Your task to perform on an android device: toggle location history Image 0: 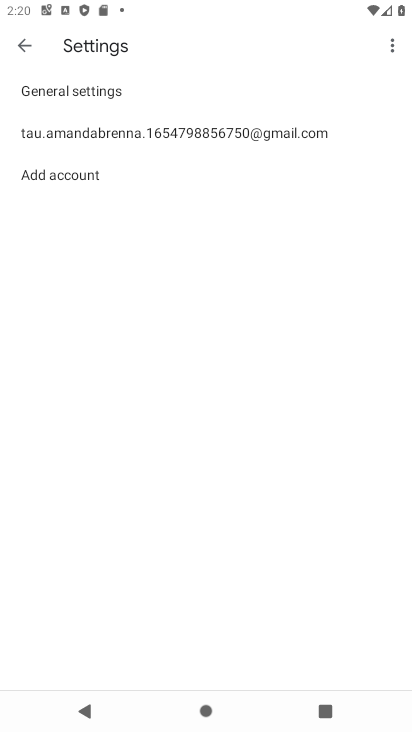
Step 0: press home button
Your task to perform on an android device: toggle location history Image 1: 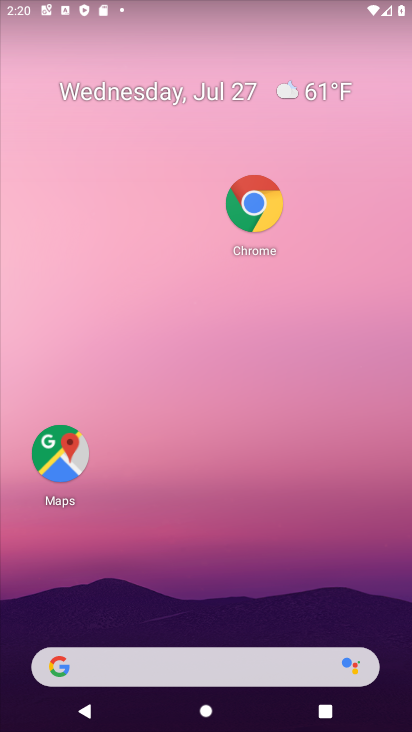
Step 1: drag from (218, 531) to (219, 216)
Your task to perform on an android device: toggle location history Image 2: 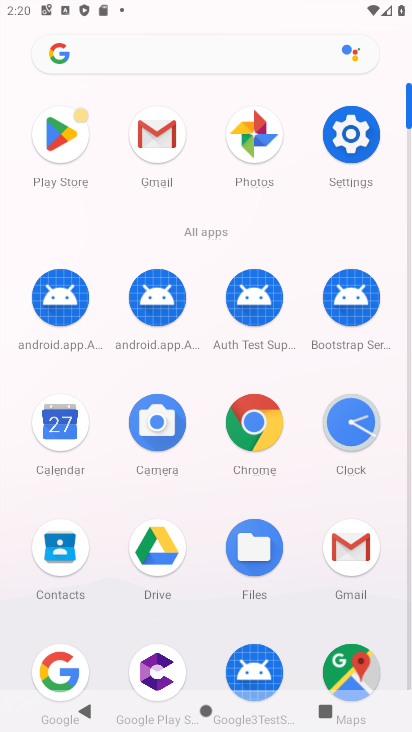
Step 2: click (332, 146)
Your task to perform on an android device: toggle location history Image 3: 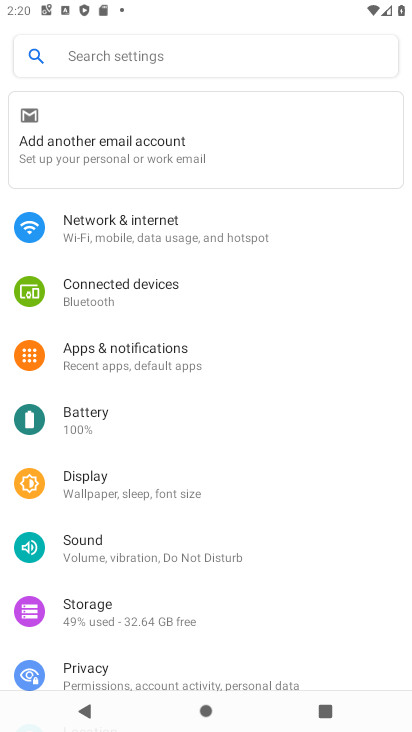
Step 3: drag from (120, 626) to (134, 318)
Your task to perform on an android device: toggle location history Image 4: 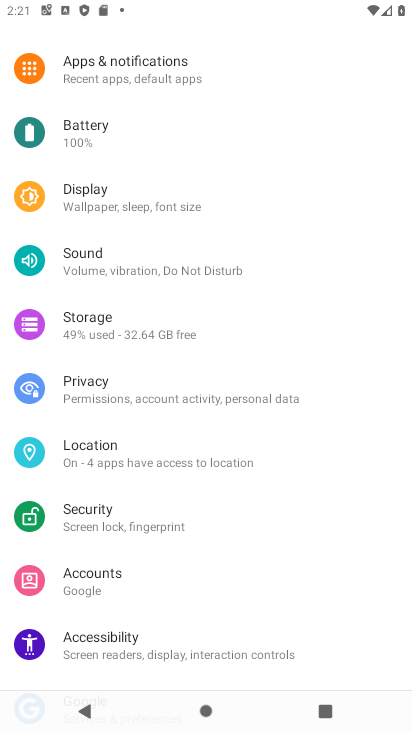
Step 4: click (111, 455)
Your task to perform on an android device: toggle location history Image 5: 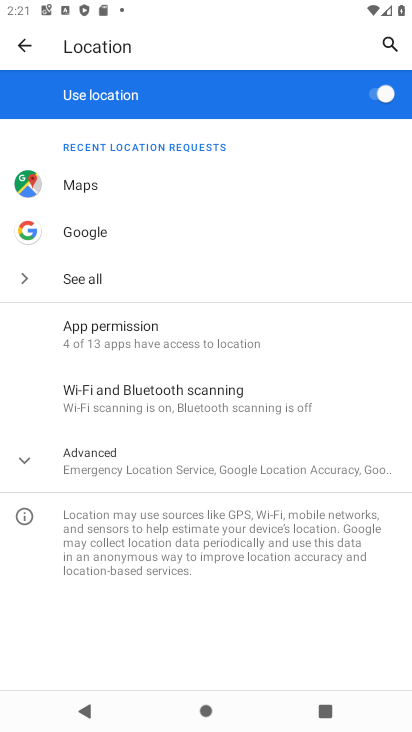
Step 5: click (193, 453)
Your task to perform on an android device: toggle location history Image 6: 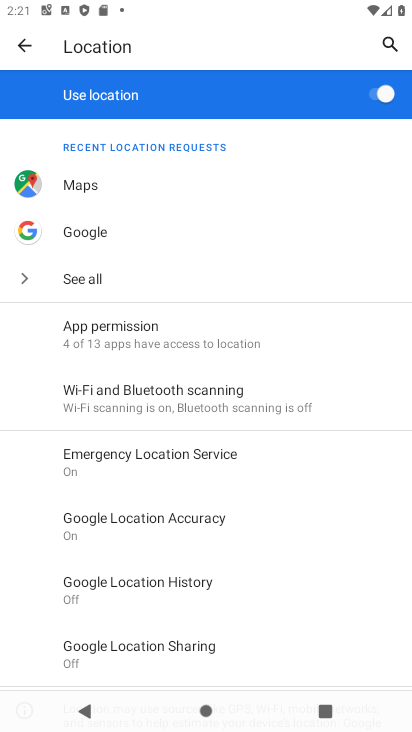
Step 6: click (211, 566)
Your task to perform on an android device: toggle location history Image 7: 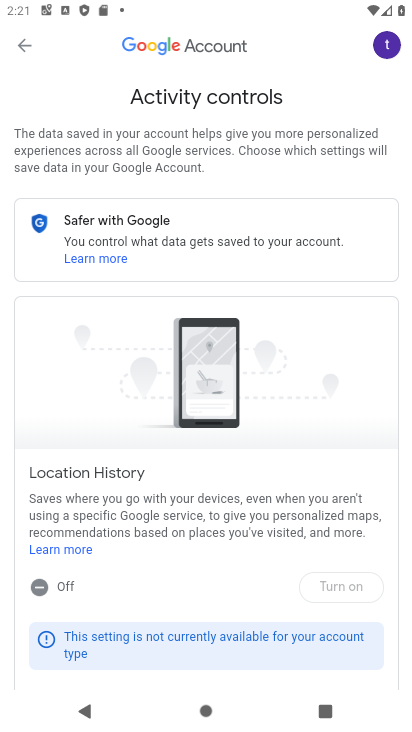
Step 7: drag from (259, 565) to (259, 287)
Your task to perform on an android device: toggle location history Image 8: 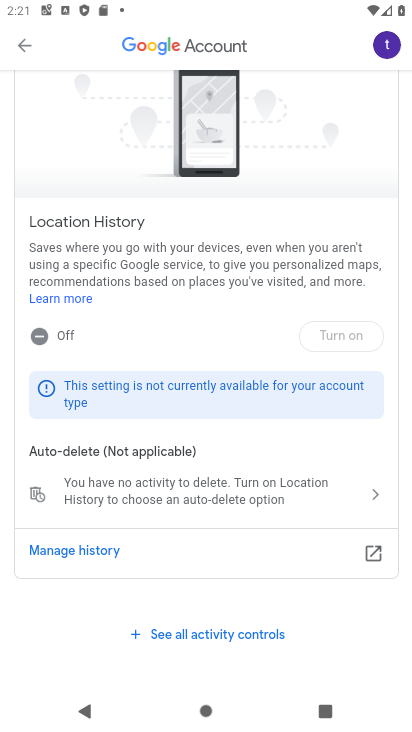
Step 8: click (338, 328)
Your task to perform on an android device: toggle location history Image 9: 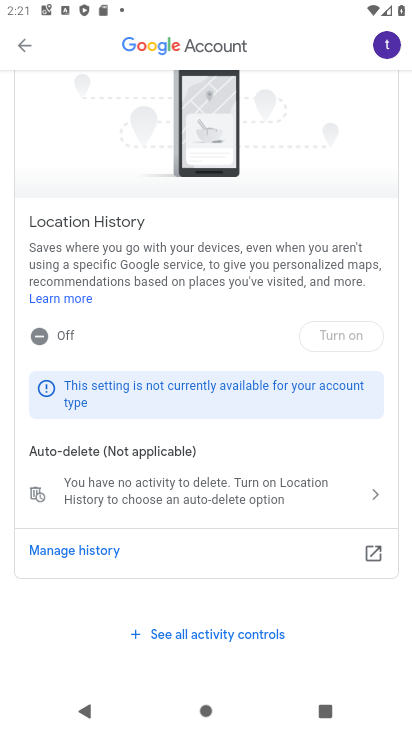
Step 9: task complete